Your task to perform on an android device: open chrome and create a bookmark for the current page Image 0: 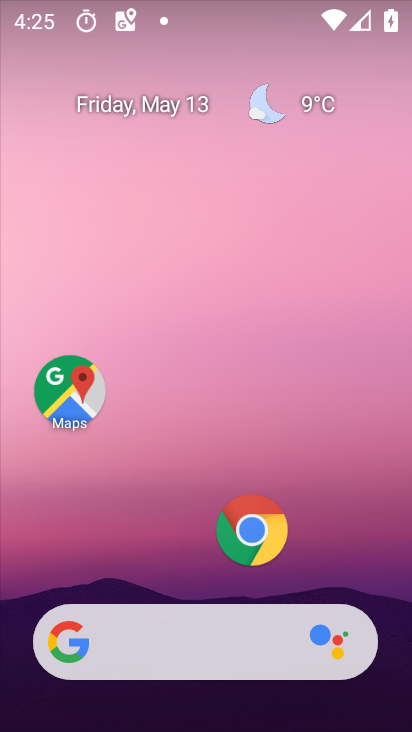
Step 0: press home button
Your task to perform on an android device: open chrome and create a bookmark for the current page Image 1: 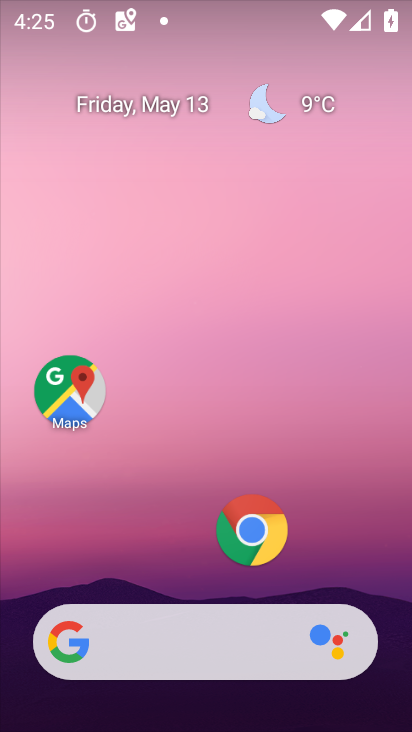
Step 1: drag from (188, 579) to (221, 30)
Your task to perform on an android device: open chrome and create a bookmark for the current page Image 2: 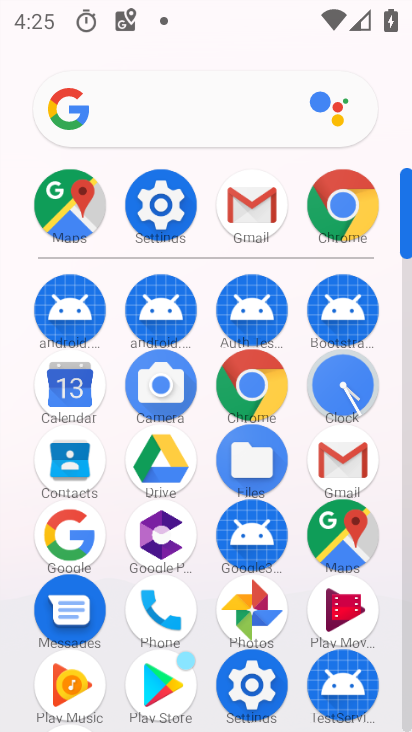
Step 2: click (348, 206)
Your task to perform on an android device: open chrome and create a bookmark for the current page Image 3: 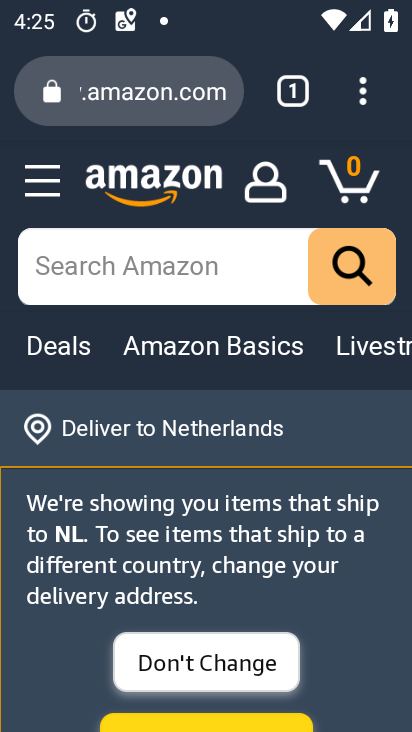
Step 3: click (366, 88)
Your task to perform on an android device: open chrome and create a bookmark for the current page Image 4: 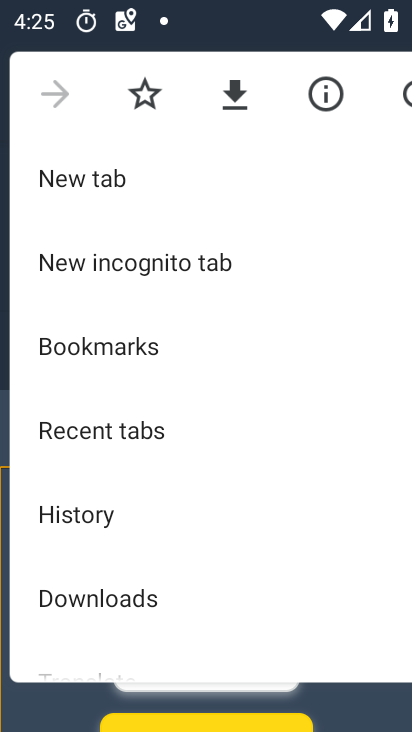
Step 4: click (96, 707)
Your task to perform on an android device: open chrome and create a bookmark for the current page Image 5: 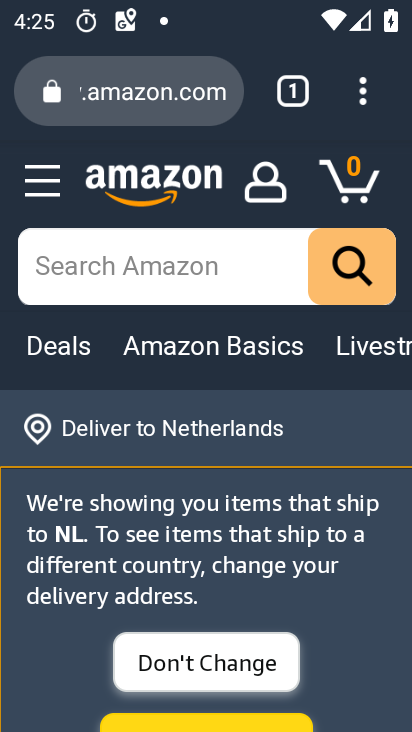
Step 5: click (364, 86)
Your task to perform on an android device: open chrome and create a bookmark for the current page Image 6: 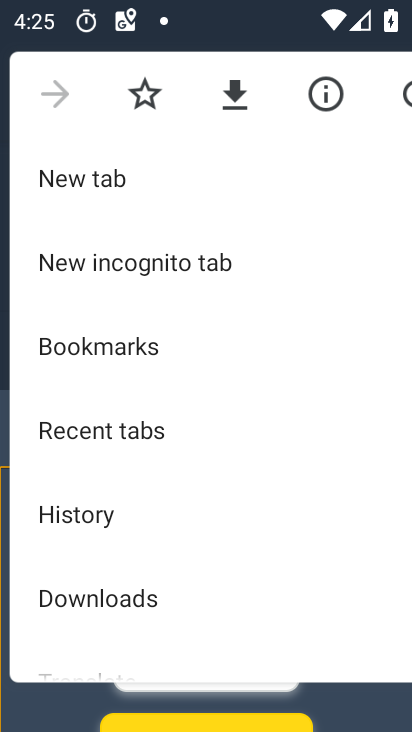
Step 6: click (145, 85)
Your task to perform on an android device: open chrome and create a bookmark for the current page Image 7: 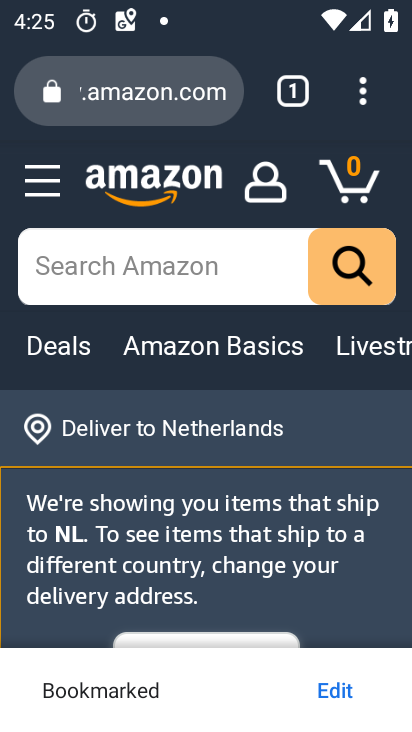
Step 7: task complete